Your task to perform on an android device: Check the weather Image 0: 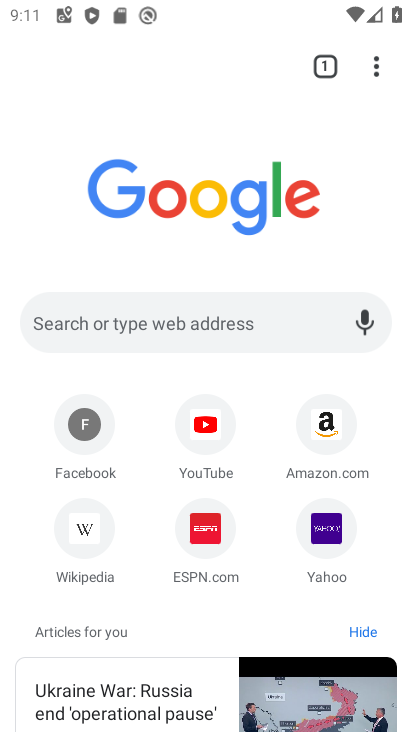
Step 0: press home button
Your task to perform on an android device: Check the weather Image 1: 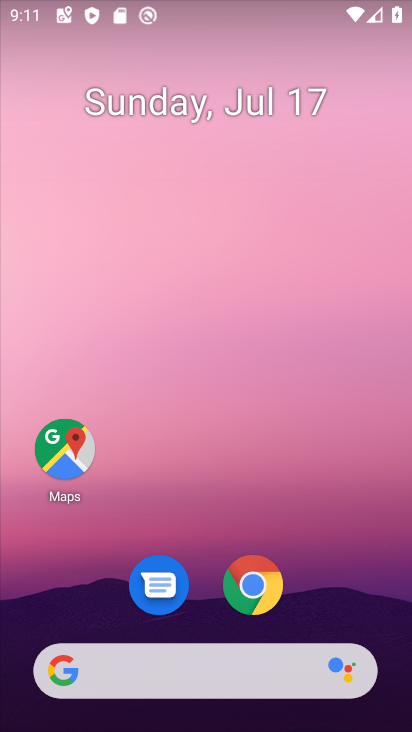
Step 1: click (267, 671)
Your task to perform on an android device: Check the weather Image 2: 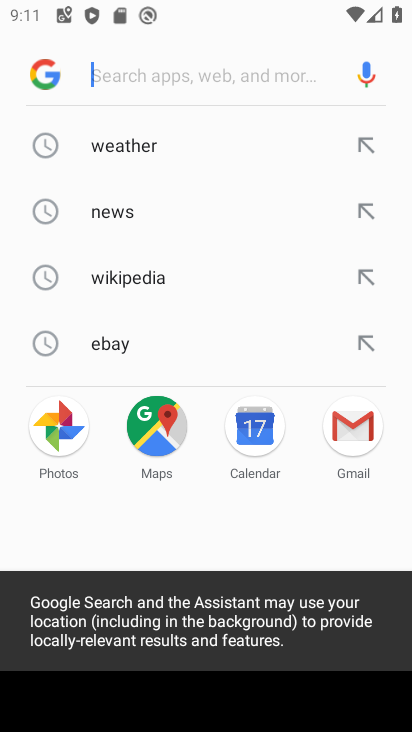
Step 2: click (105, 141)
Your task to perform on an android device: Check the weather Image 3: 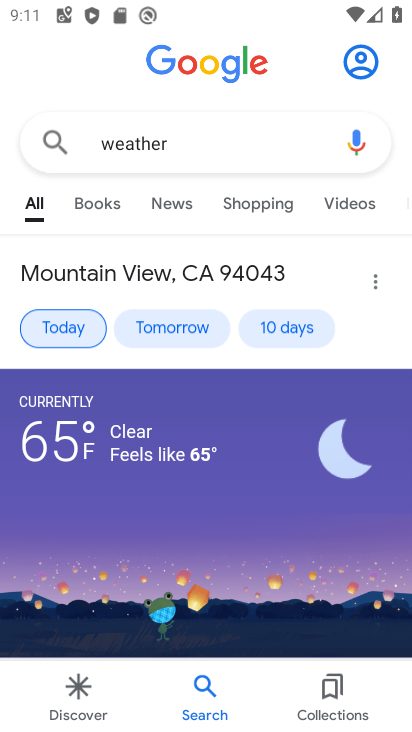
Step 3: click (78, 320)
Your task to perform on an android device: Check the weather Image 4: 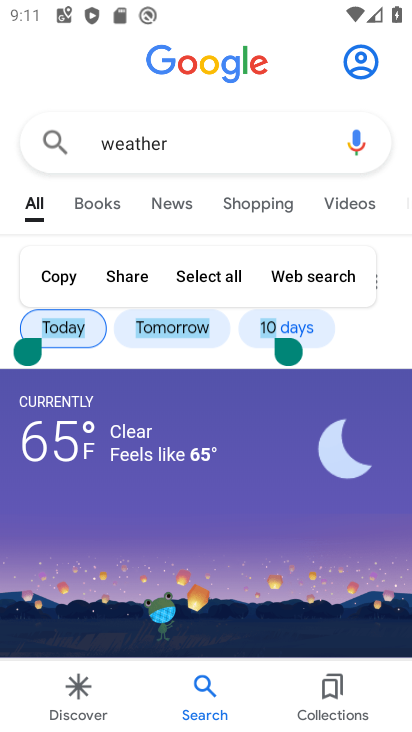
Step 4: click (108, 400)
Your task to perform on an android device: Check the weather Image 5: 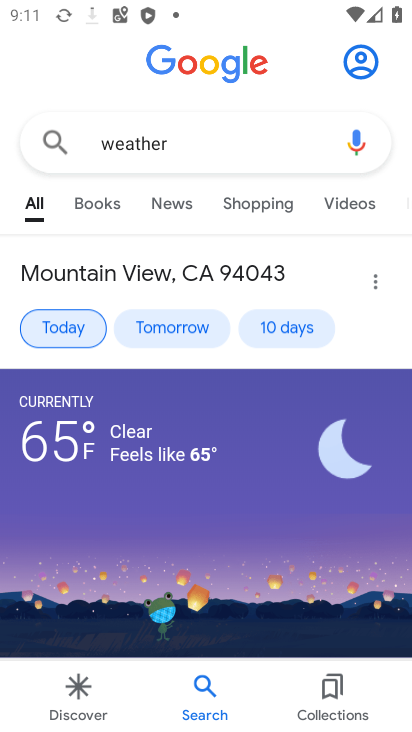
Step 5: click (91, 335)
Your task to perform on an android device: Check the weather Image 6: 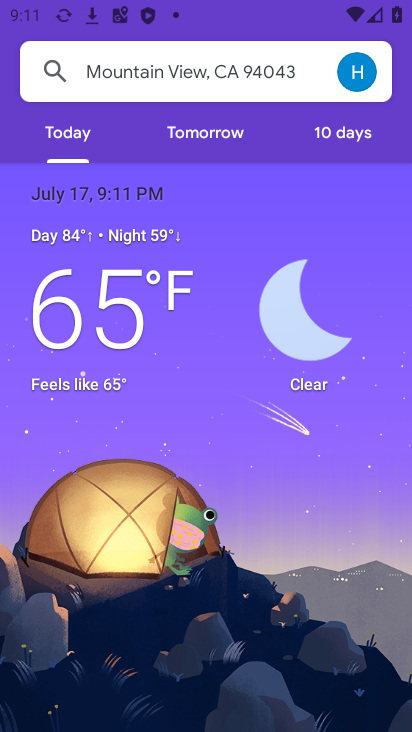
Step 6: task complete